Your task to perform on an android device: turn on translation in the chrome app Image 0: 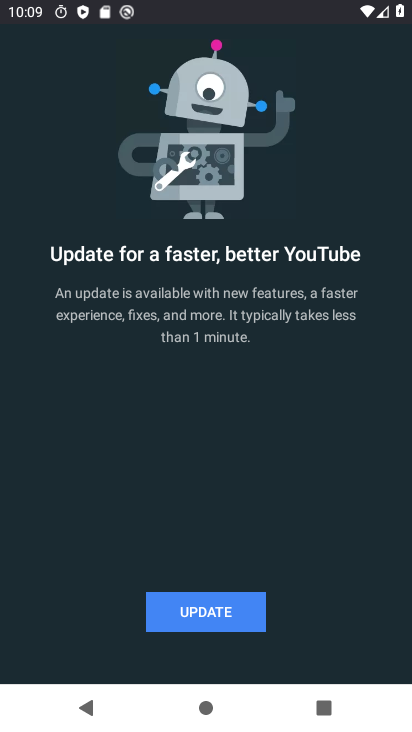
Step 0: press home button
Your task to perform on an android device: turn on translation in the chrome app Image 1: 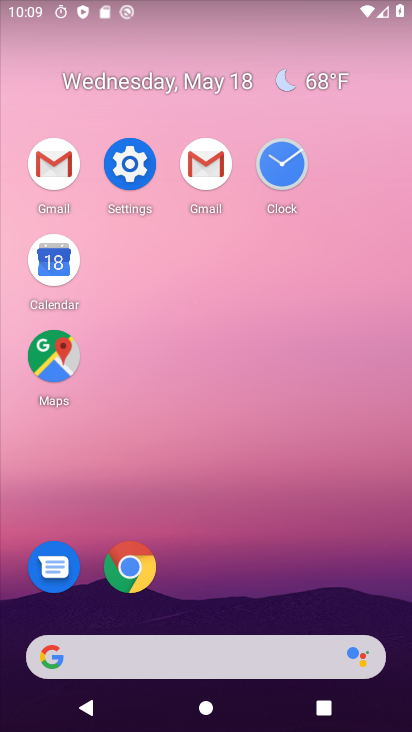
Step 1: click (141, 561)
Your task to perform on an android device: turn on translation in the chrome app Image 2: 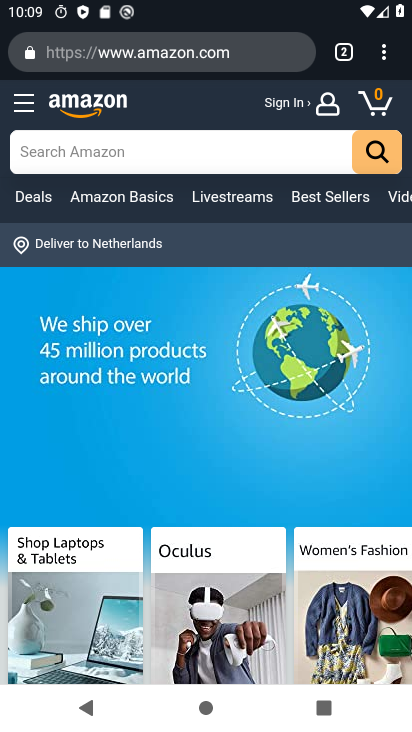
Step 2: click (388, 62)
Your task to perform on an android device: turn on translation in the chrome app Image 3: 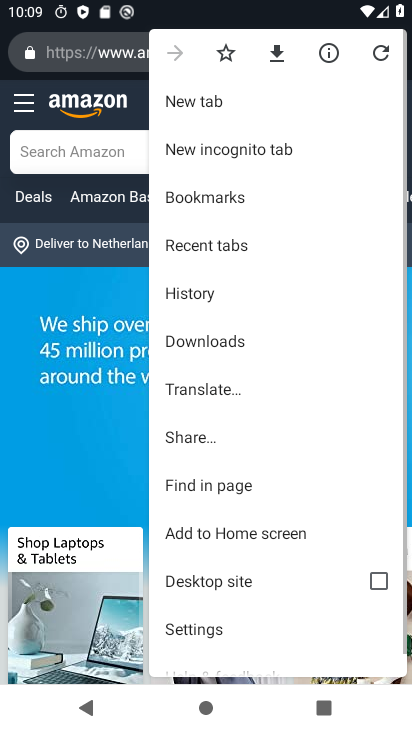
Step 3: drag from (265, 474) to (257, 168)
Your task to perform on an android device: turn on translation in the chrome app Image 4: 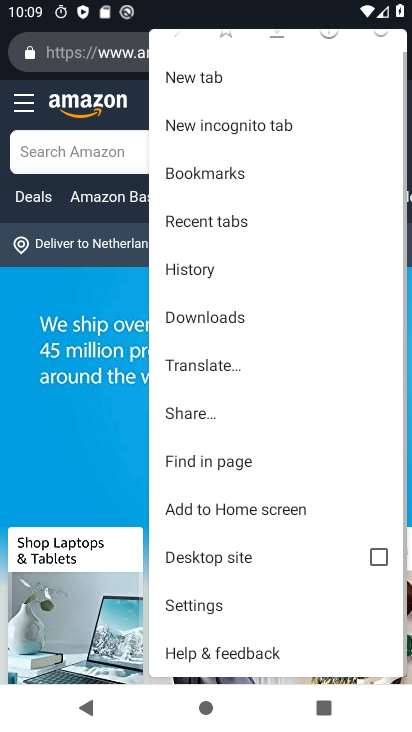
Step 4: click (245, 596)
Your task to perform on an android device: turn on translation in the chrome app Image 5: 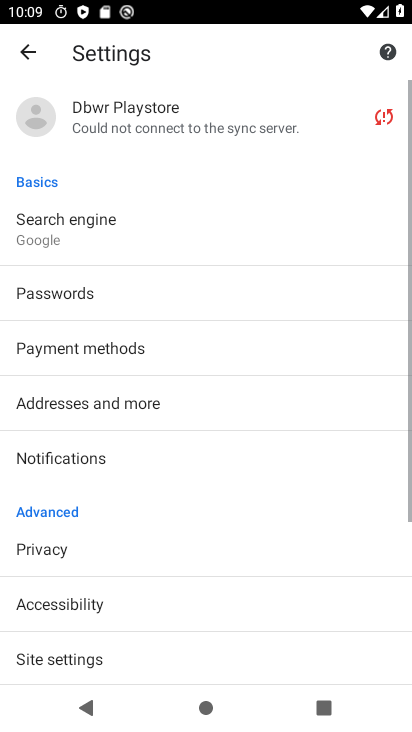
Step 5: drag from (241, 527) to (240, 227)
Your task to perform on an android device: turn on translation in the chrome app Image 6: 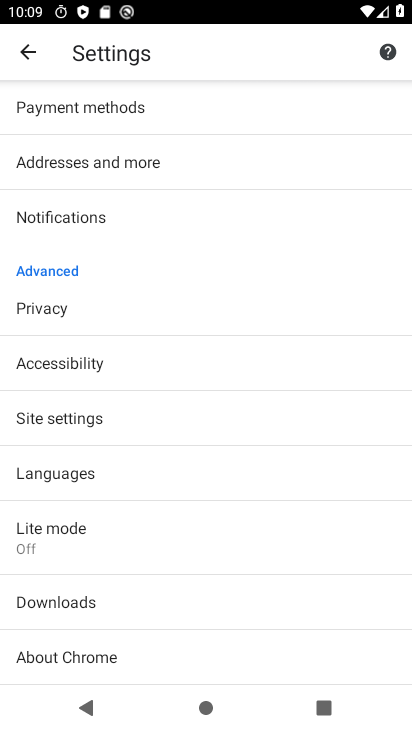
Step 6: click (194, 497)
Your task to perform on an android device: turn on translation in the chrome app Image 7: 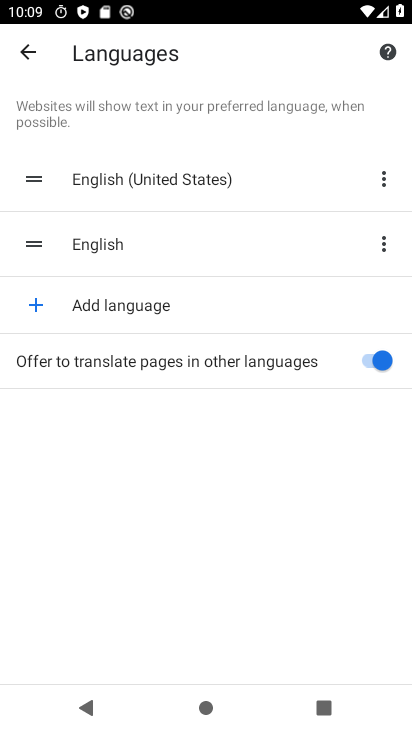
Step 7: task complete